Your task to perform on an android device: open app "Life360: Find Family & Friends" (install if not already installed) and go to login screen Image 0: 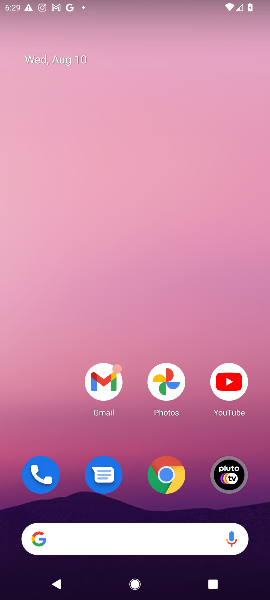
Step 0: drag from (142, 515) to (116, 222)
Your task to perform on an android device: open app "Life360: Find Family & Friends" (install if not already installed) and go to login screen Image 1: 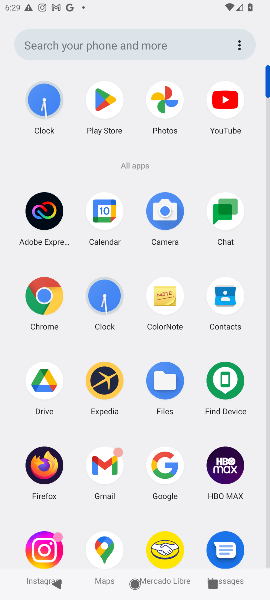
Step 1: click (96, 111)
Your task to perform on an android device: open app "Life360: Find Family & Friends" (install if not already installed) and go to login screen Image 2: 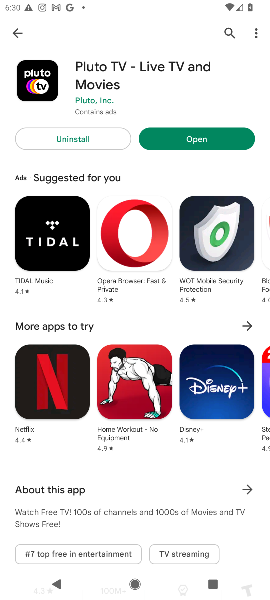
Step 2: click (227, 34)
Your task to perform on an android device: open app "Life360: Find Family & Friends" (install if not already installed) and go to login screen Image 3: 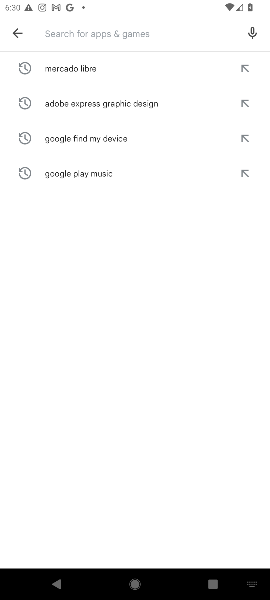
Step 3: type "Life360: Find Family & Friends"
Your task to perform on an android device: open app "Life360: Find Family & Friends" (install if not already installed) and go to login screen Image 4: 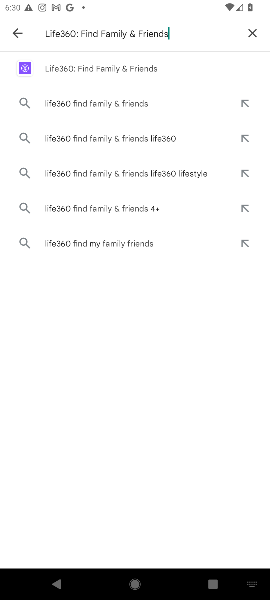
Step 4: click (121, 71)
Your task to perform on an android device: open app "Life360: Find Family & Friends" (install if not already installed) and go to login screen Image 5: 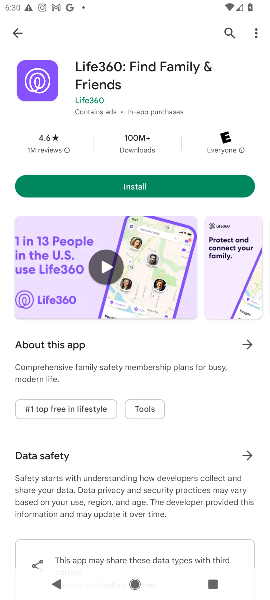
Step 5: click (103, 193)
Your task to perform on an android device: open app "Life360: Find Family & Friends" (install if not already installed) and go to login screen Image 6: 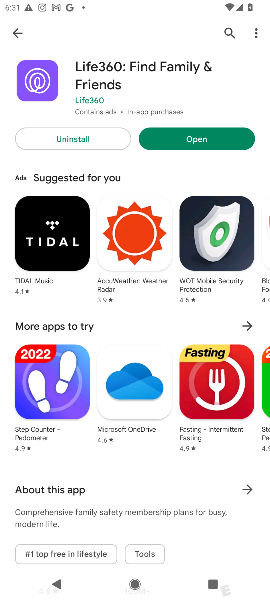
Step 6: click (174, 138)
Your task to perform on an android device: open app "Life360: Find Family & Friends" (install if not already installed) and go to login screen Image 7: 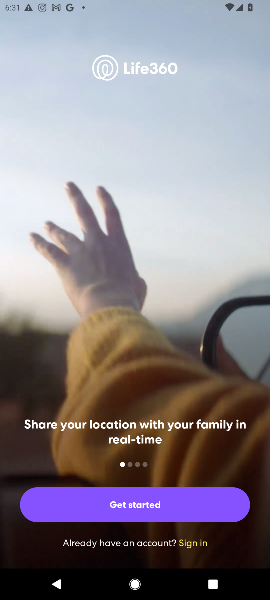
Step 7: click (161, 502)
Your task to perform on an android device: open app "Life360: Find Family & Friends" (install if not already installed) and go to login screen Image 8: 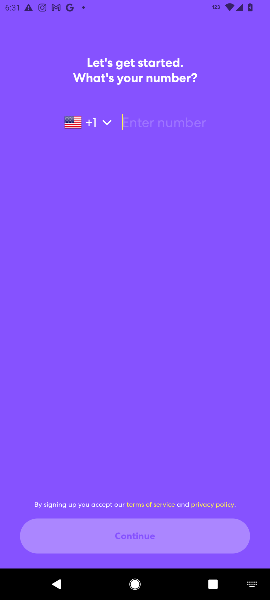
Step 8: task complete